Your task to perform on an android device: toggle notifications settings in the gmail app Image 0: 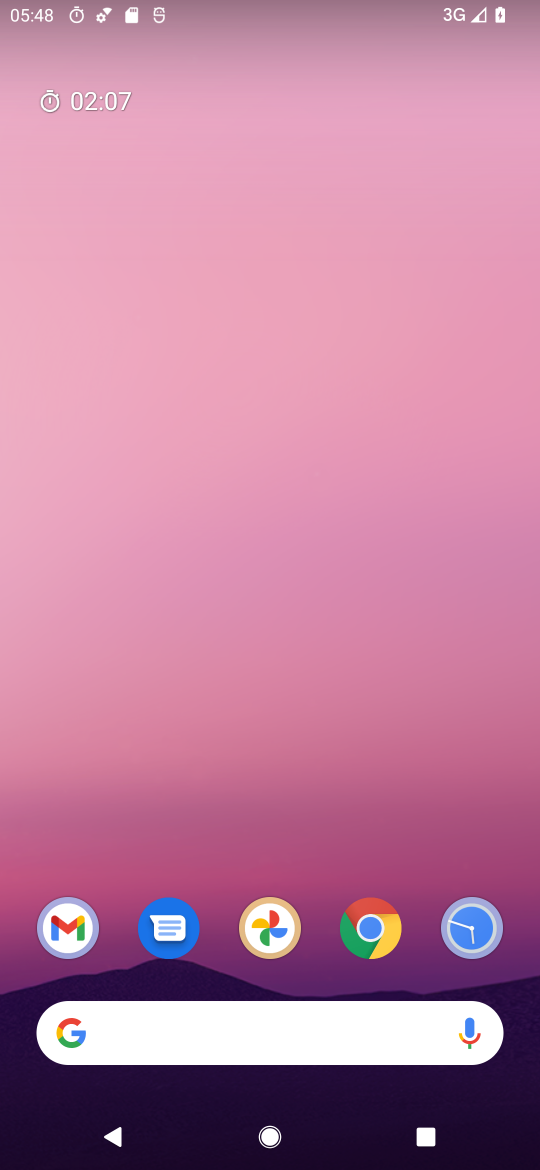
Step 0: click (55, 946)
Your task to perform on an android device: toggle notifications settings in the gmail app Image 1: 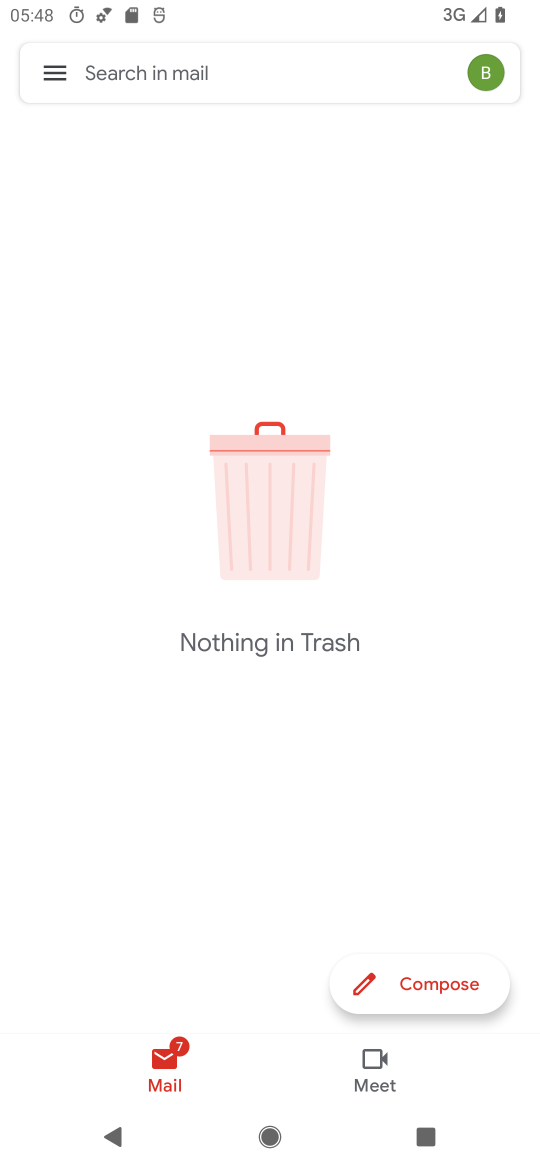
Step 1: click (46, 66)
Your task to perform on an android device: toggle notifications settings in the gmail app Image 2: 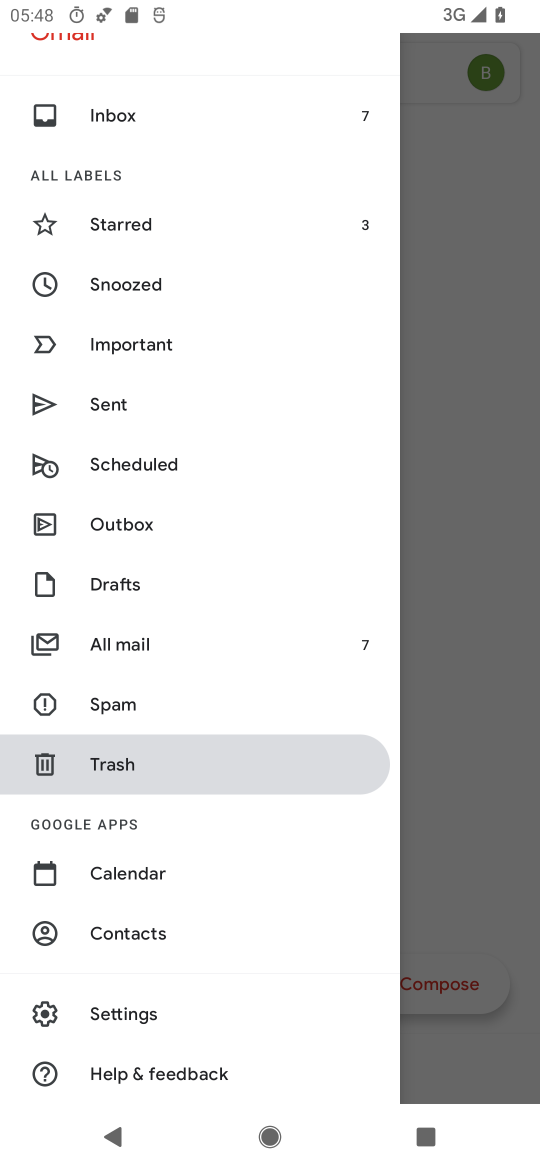
Step 2: drag from (248, 868) to (267, 396)
Your task to perform on an android device: toggle notifications settings in the gmail app Image 3: 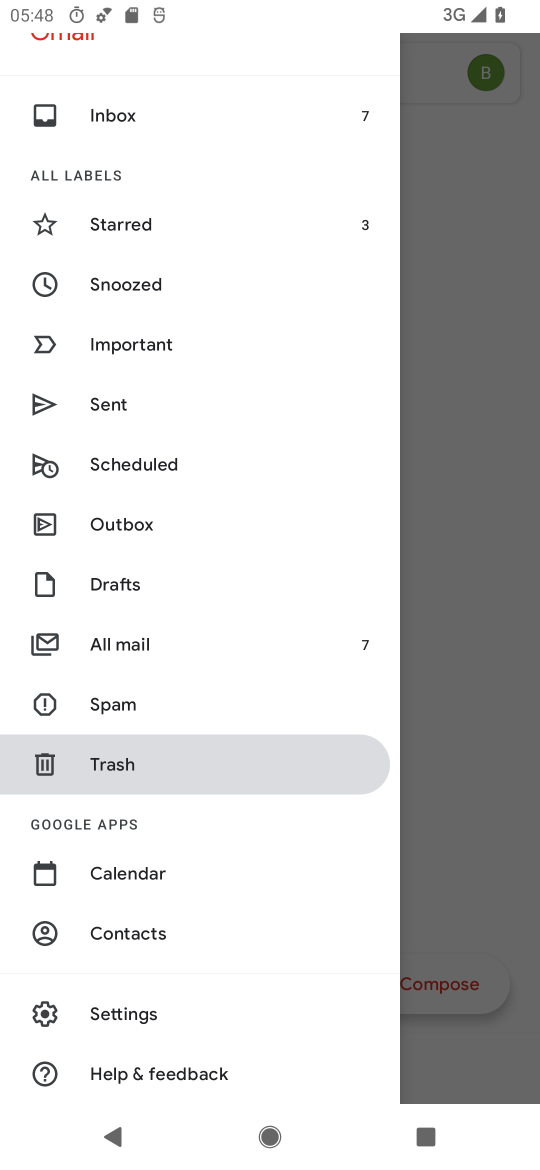
Step 3: click (112, 1021)
Your task to perform on an android device: toggle notifications settings in the gmail app Image 4: 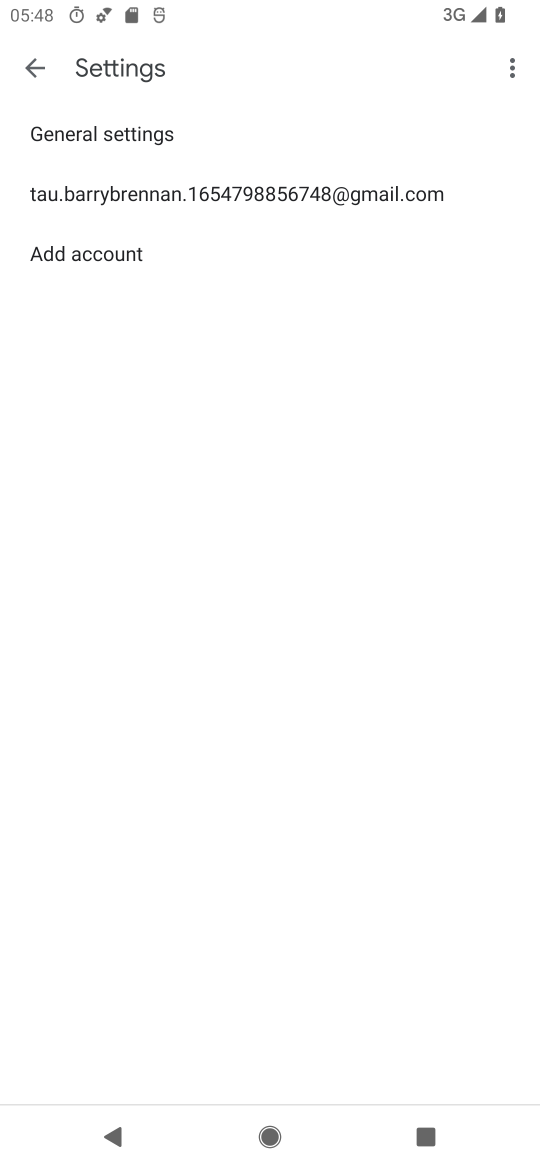
Step 4: click (156, 137)
Your task to perform on an android device: toggle notifications settings in the gmail app Image 5: 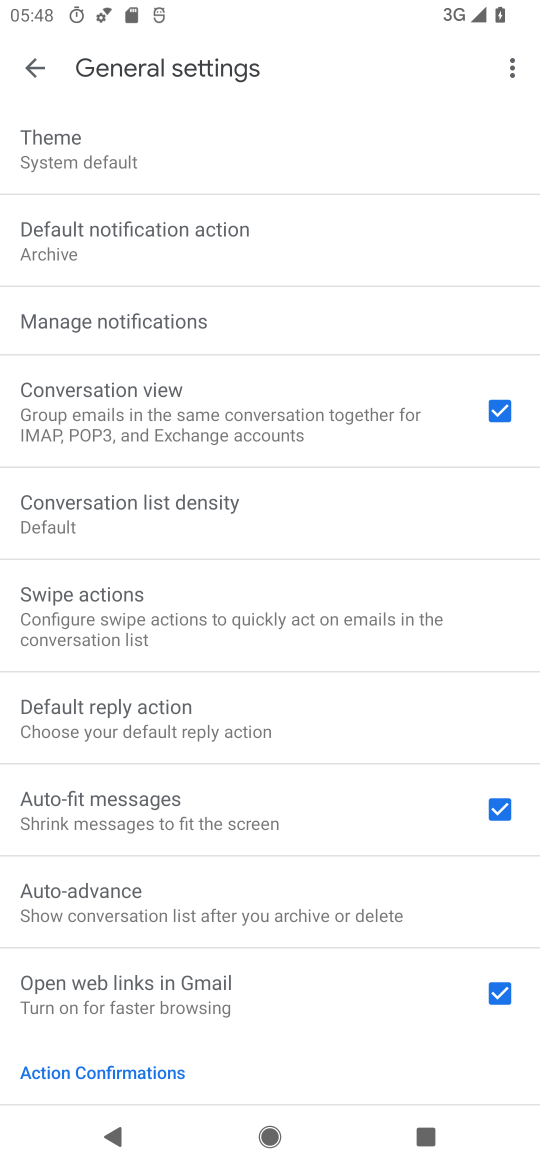
Step 5: click (171, 315)
Your task to perform on an android device: toggle notifications settings in the gmail app Image 6: 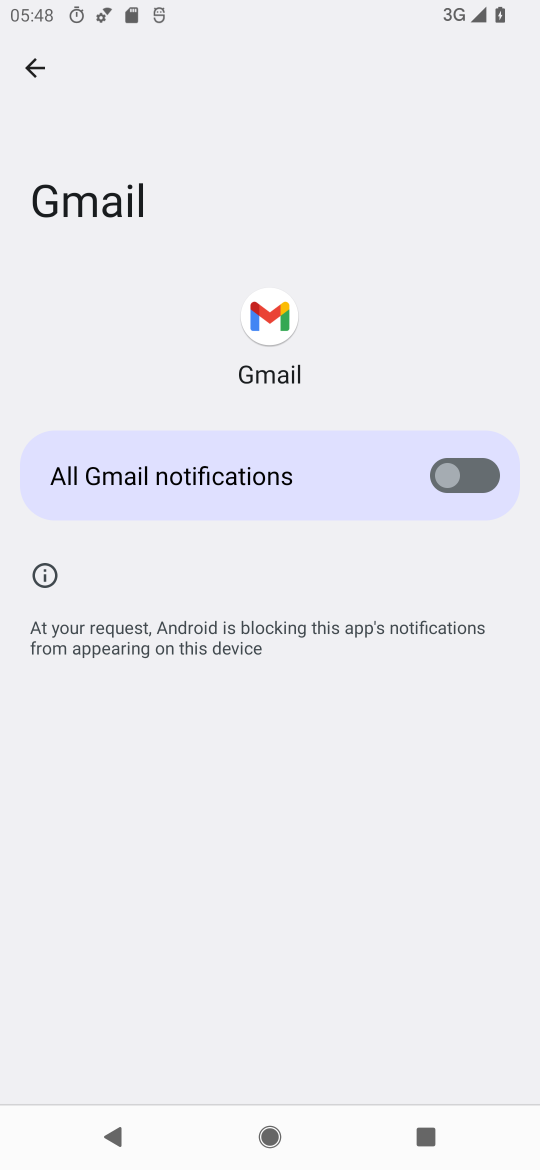
Step 6: click (495, 471)
Your task to perform on an android device: toggle notifications settings in the gmail app Image 7: 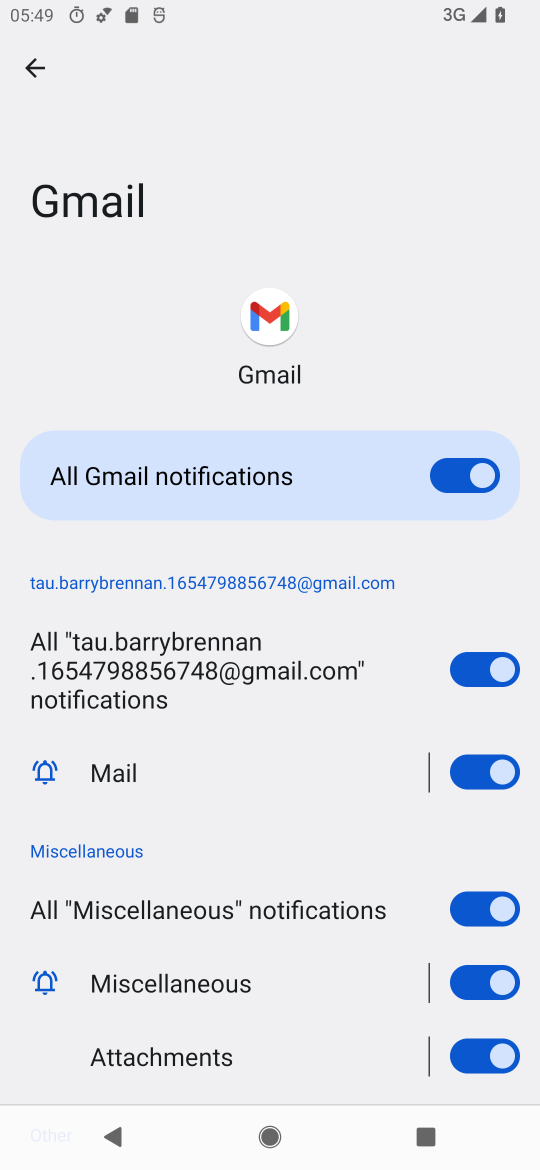
Step 7: task complete